Your task to perform on an android device: What's the weather? Image 0: 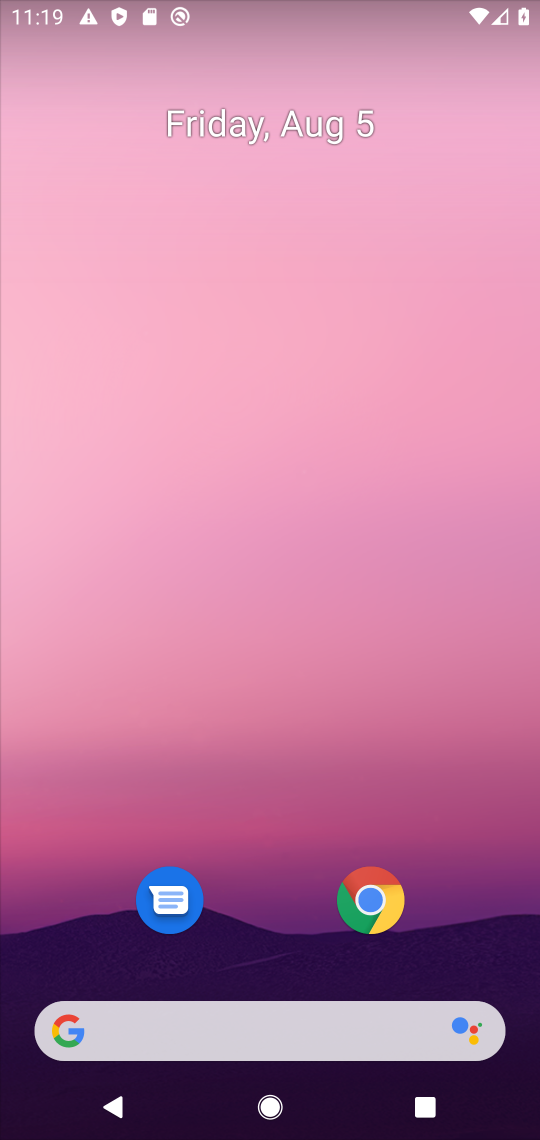
Step 0: drag from (288, 968) to (250, 30)
Your task to perform on an android device: What's the weather? Image 1: 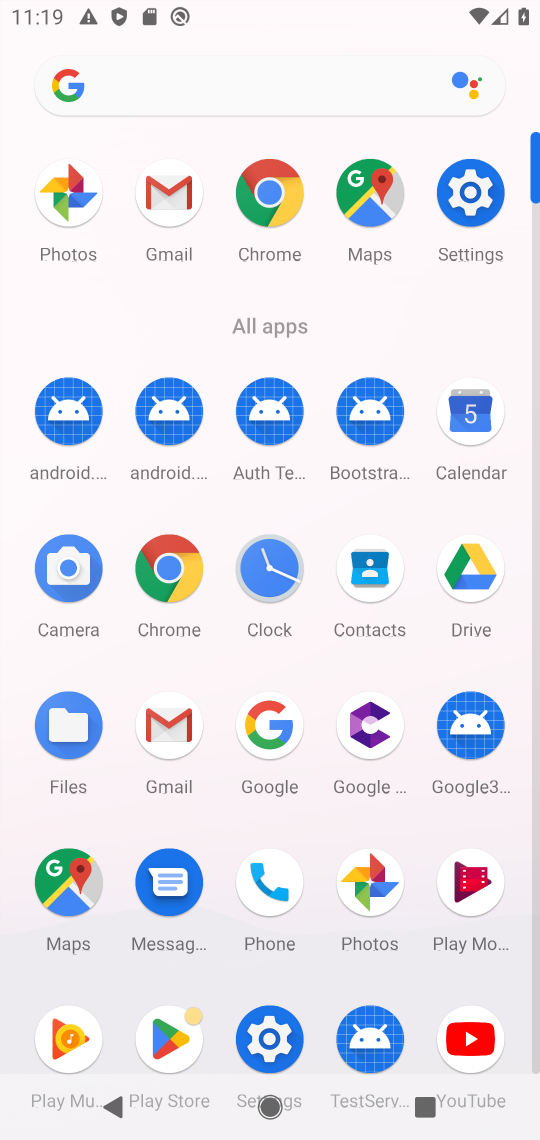
Step 1: click (265, 726)
Your task to perform on an android device: What's the weather? Image 2: 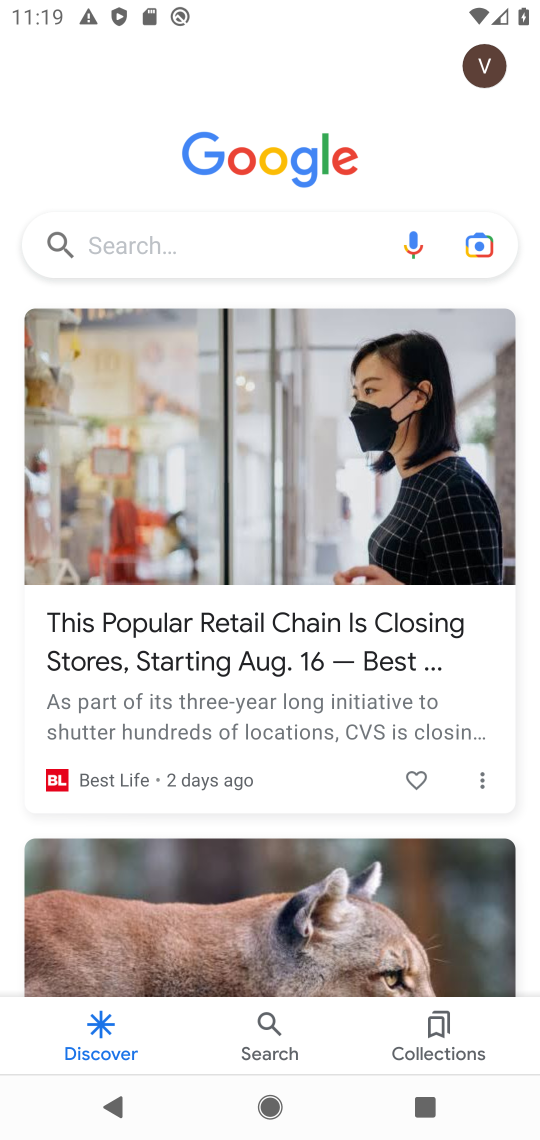
Step 2: click (259, 252)
Your task to perform on an android device: What's the weather? Image 3: 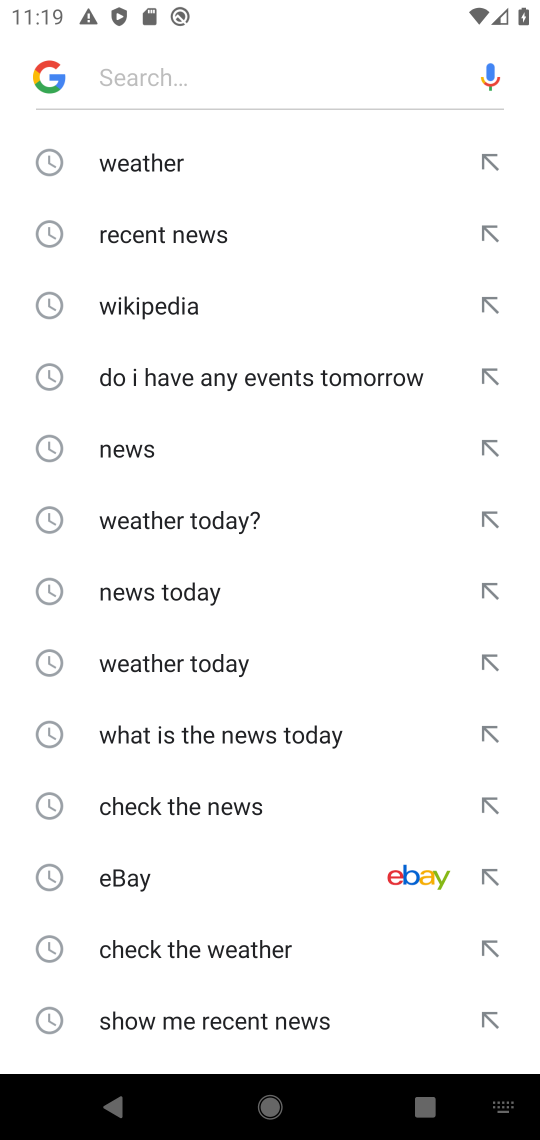
Step 3: click (160, 168)
Your task to perform on an android device: What's the weather? Image 4: 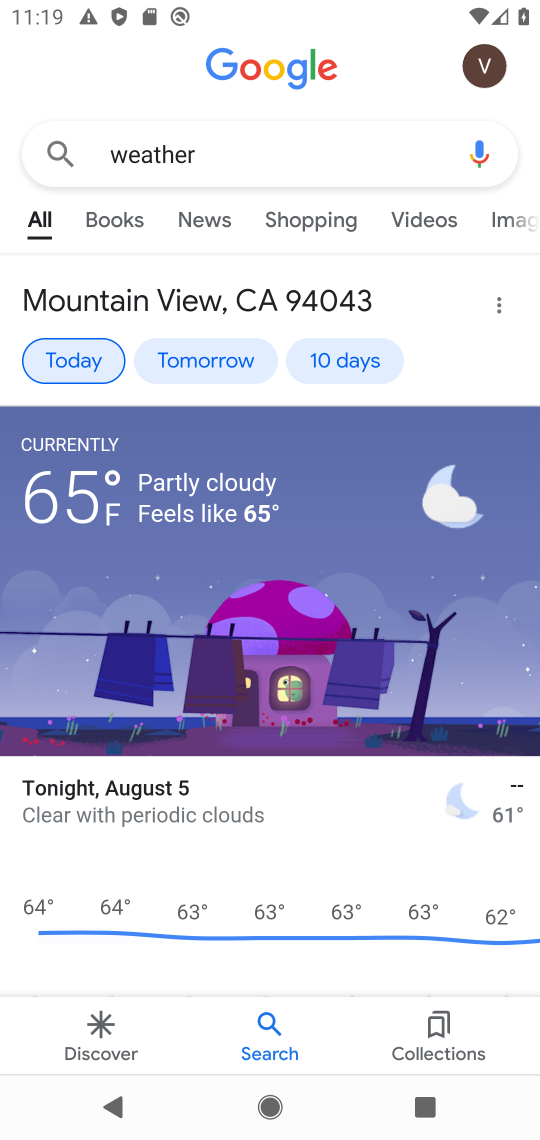
Step 4: click (78, 367)
Your task to perform on an android device: What's the weather? Image 5: 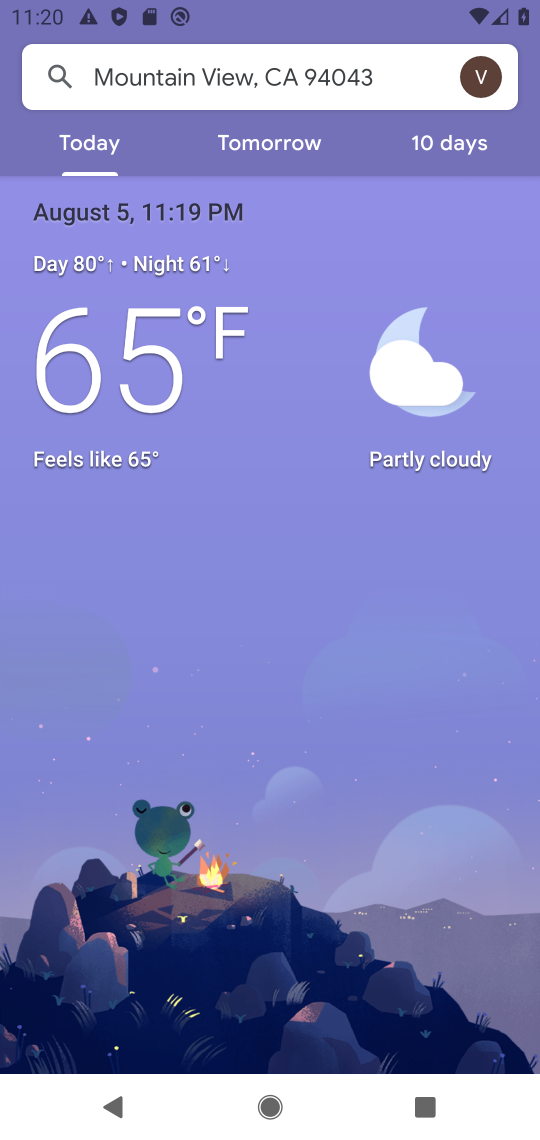
Step 5: task complete